Your task to perform on an android device: turn off improve location accuracy Image 0: 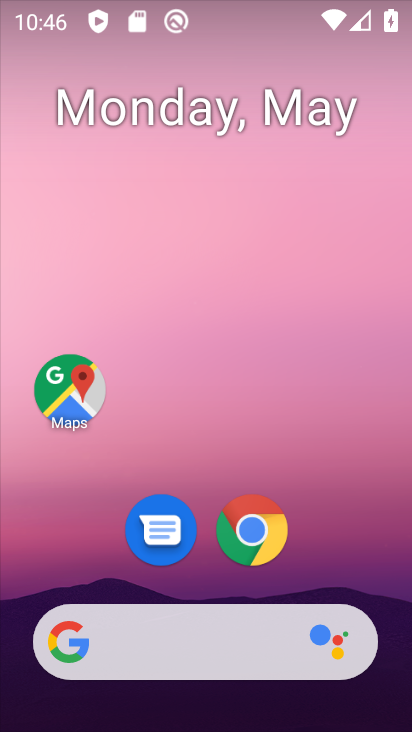
Step 0: drag from (349, 554) to (279, 113)
Your task to perform on an android device: turn off improve location accuracy Image 1: 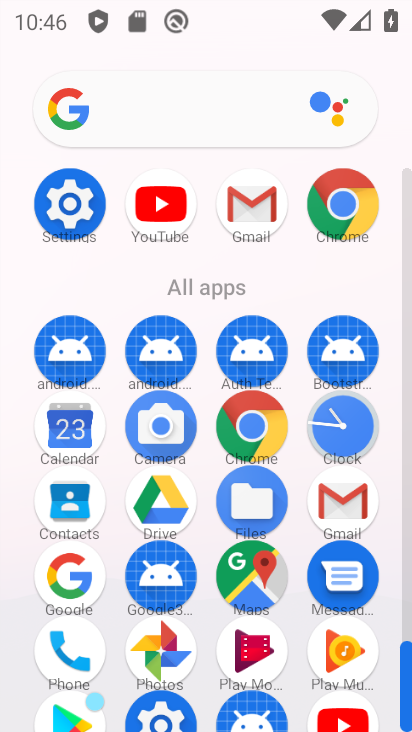
Step 1: click (70, 201)
Your task to perform on an android device: turn off improve location accuracy Image 2: 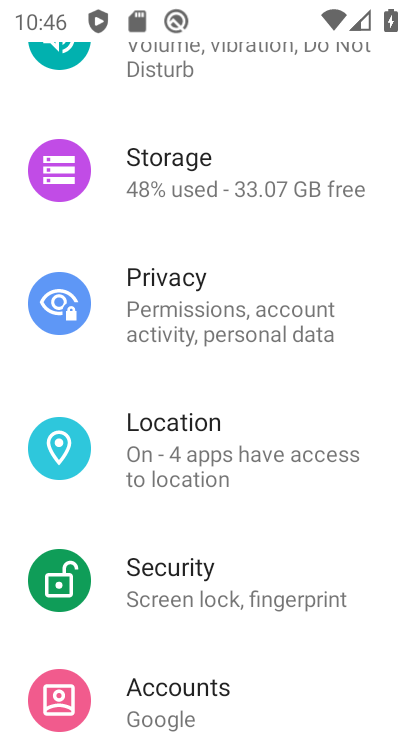
Step 2: click (190, 427)
Your task to perform on an android device: turn off improve location accuracy Image 3: 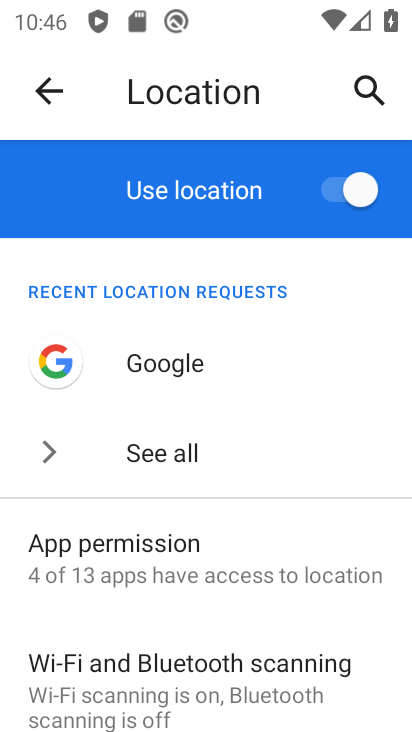
Step 3: drag from (174, 617) to (249, 363)
Your task to perform on an android device: turn off improve location accuracy Image 4: 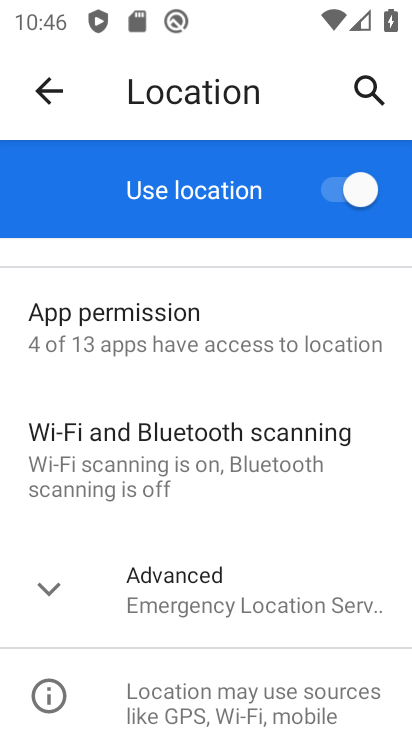
Step 4: click (227, 603)
Your task to perform on an android device: turn off improve location accuracy Image 5: 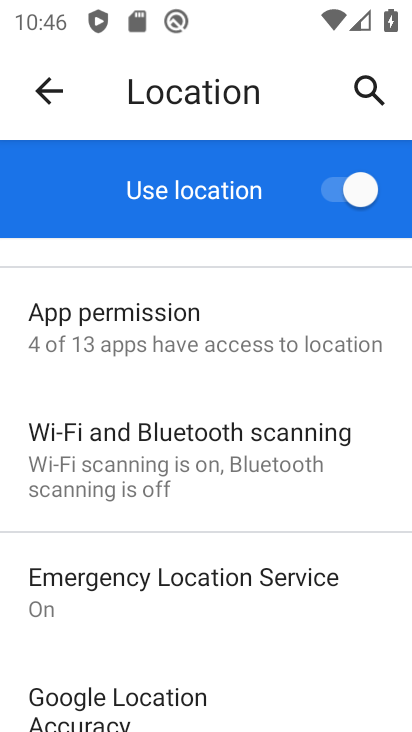
Step 5: drag from (213, 621) to (266, 417)
Your task to perform on an android device: turn off improve location accuracy Image 6: 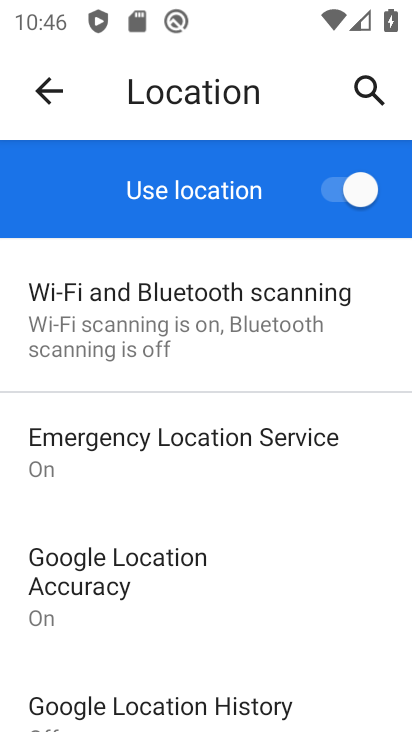
Step 6: click (133, 586)
Your task to perform on an android device: turn off improve location accuracy Image 7: 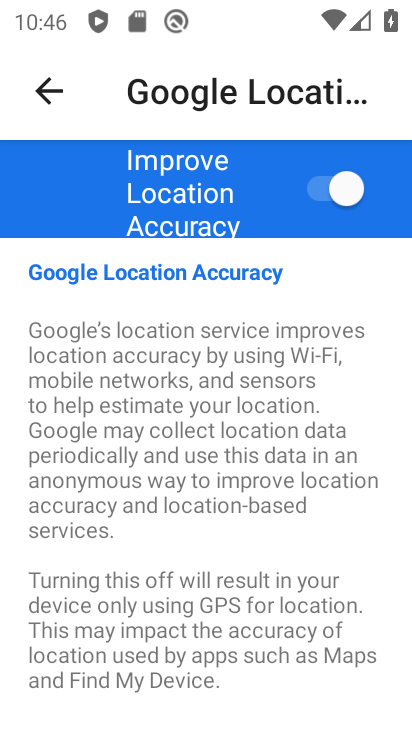
Step 7: click (322, 198)
Your task to perform on an android device: turn off improve location accuracy Image 8: 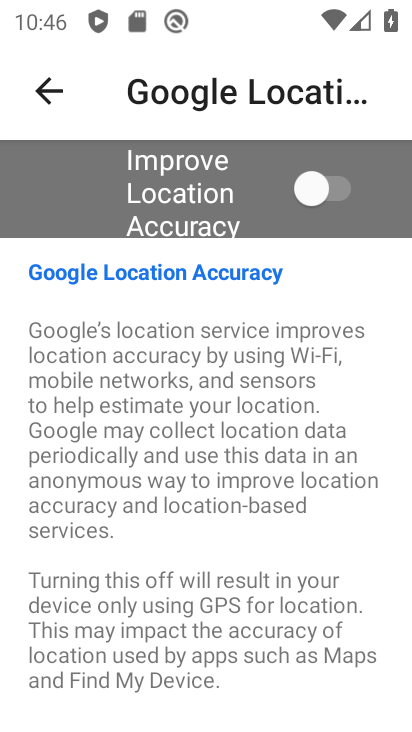
Step 8: task complete